Your task to perform on an android device: Go to accessibility settings Image 0: 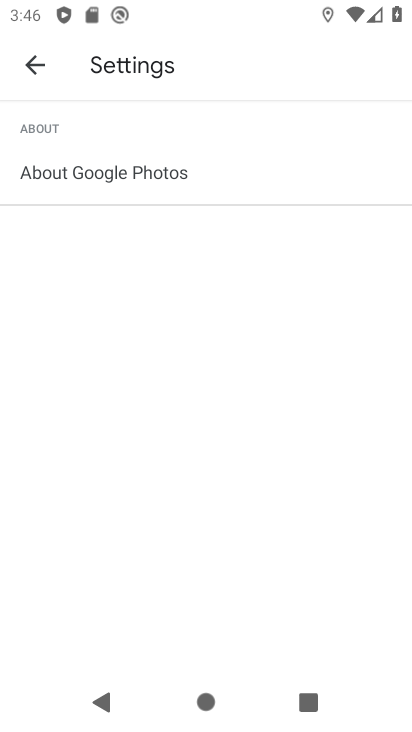
Step 0: press home button
Your task to perform on an android device: Go to accessibility settings Image 1: 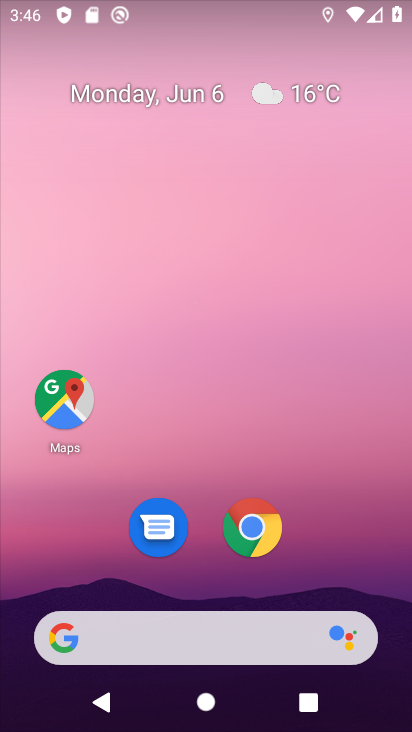
Step 1: drag from (335, 546) to (297, 210)
Your task to perform on an android device: Go to accessibility settings Image 2: 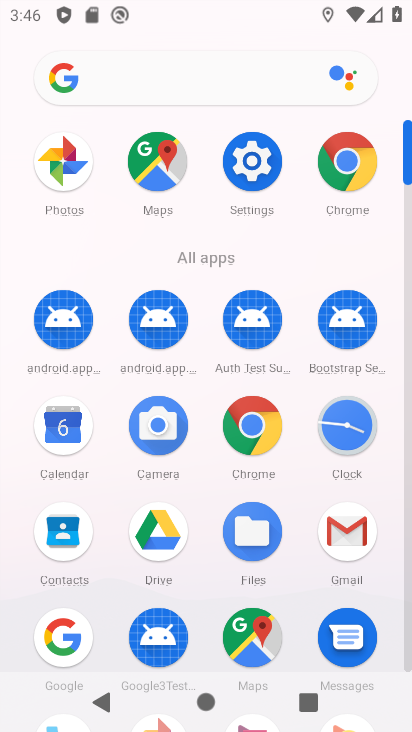
Step 2: click (247, 159)
Your task to perform on an android device: Go to accessibility settings Image 3: 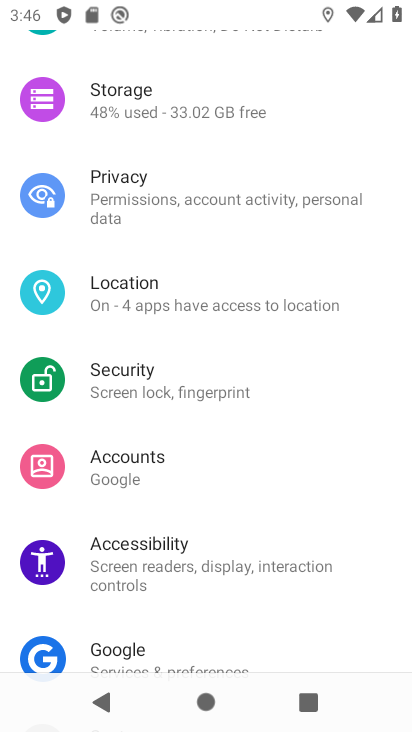
Step 3: click (198, 585)
Your task to perform on an android device: Go to accessibility settings Image 4: 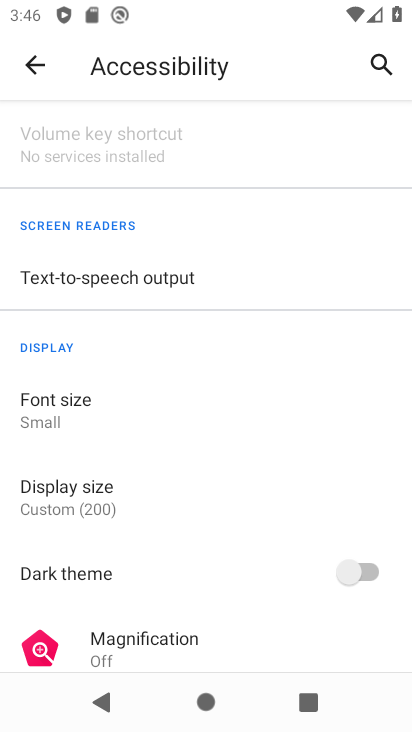
Step 4: task complete